Your task to perform on an android device: Open calendar and show me the second week of next month Image 0: 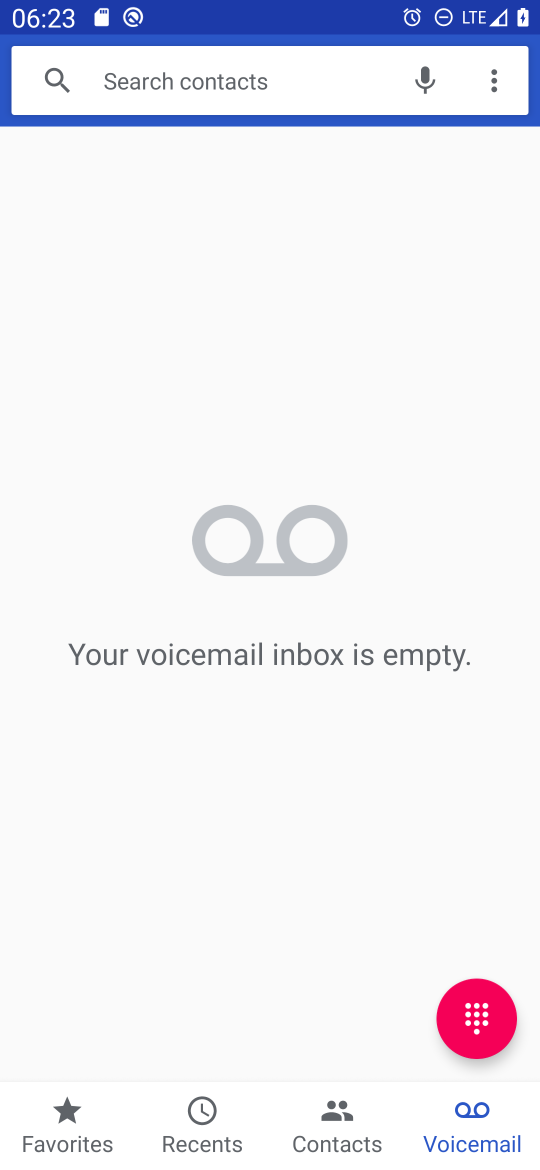
Step 0: press home button
Your task to perform on an android device: Open calendar and show me the second week of next month Image 1: 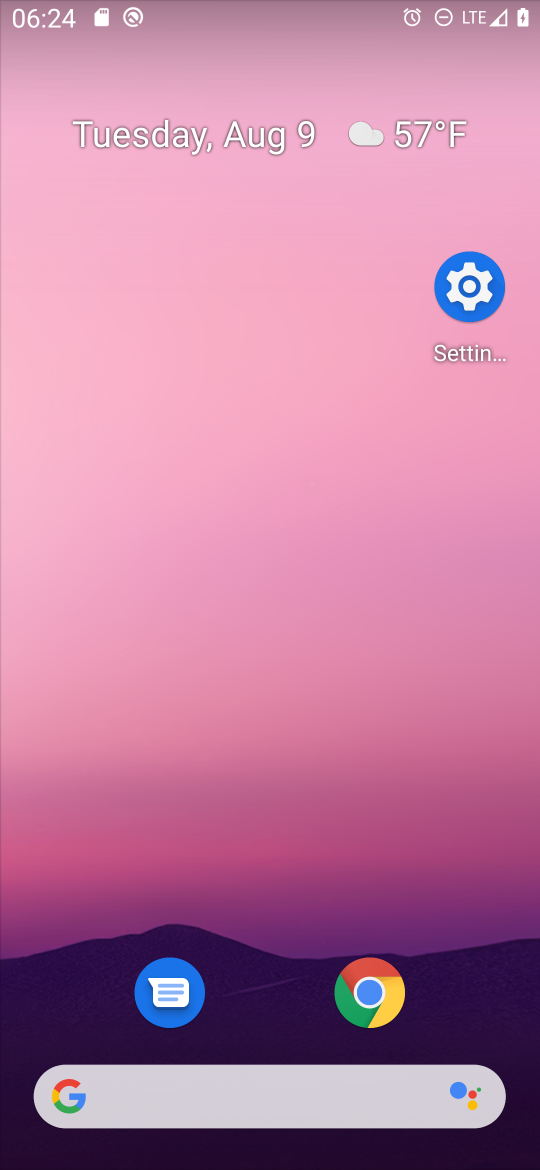
Step 1: drag from (136, 1090) to (152, 22)
Your task to perform on an android device: Open calendar and show me the second week of next month Image 2: 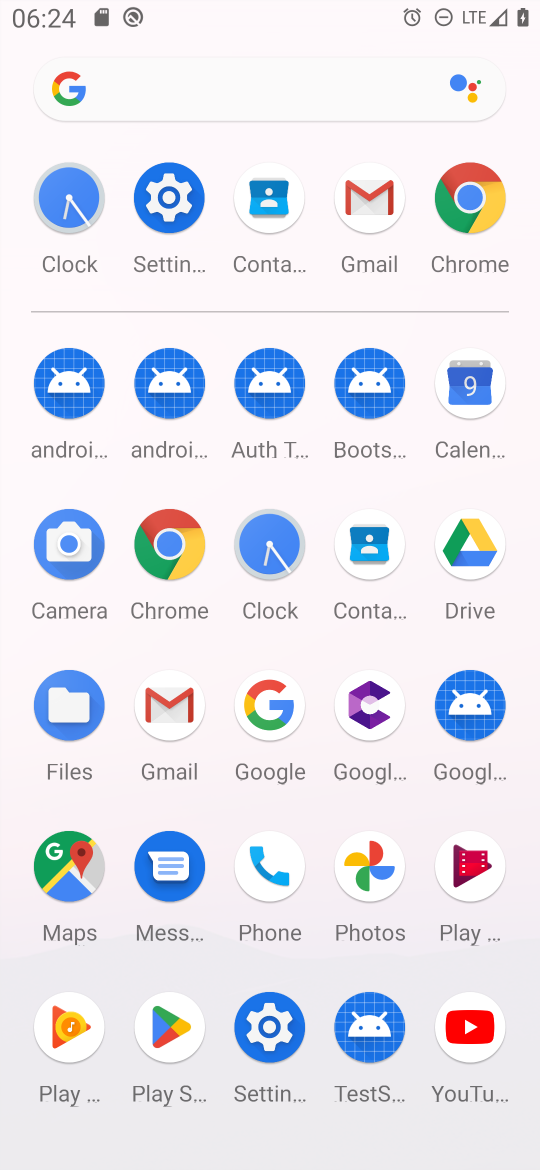
Step 2: click (493, 384)
Your task to perform on an android device: Open calendar and show me the second week of next month Image 3: 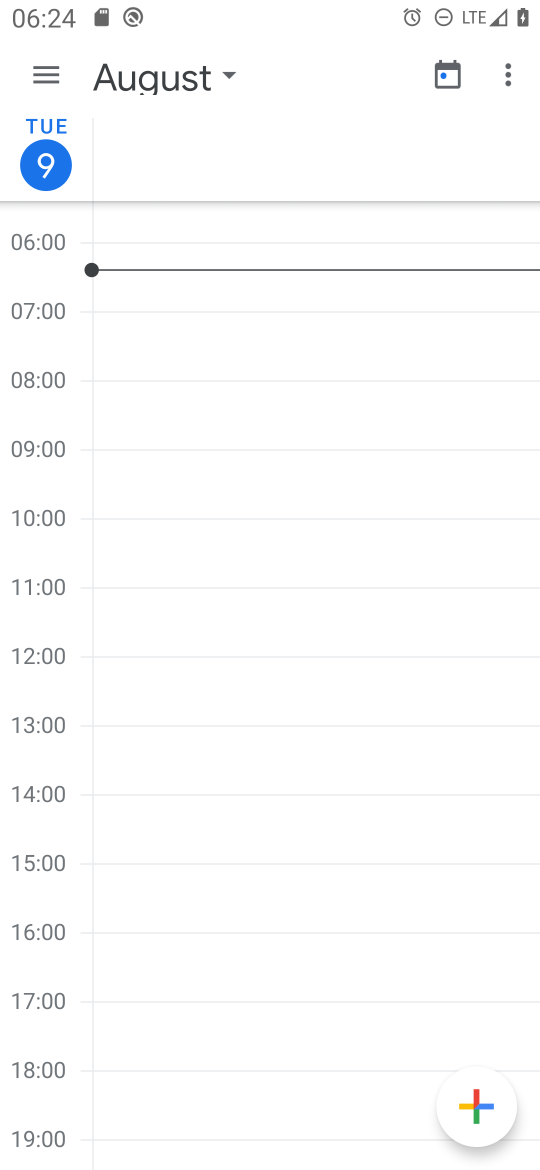
Step 3: click (218, 72)
Your task to perform on an android device: Open calendar and show me the second week of next month Image 4: 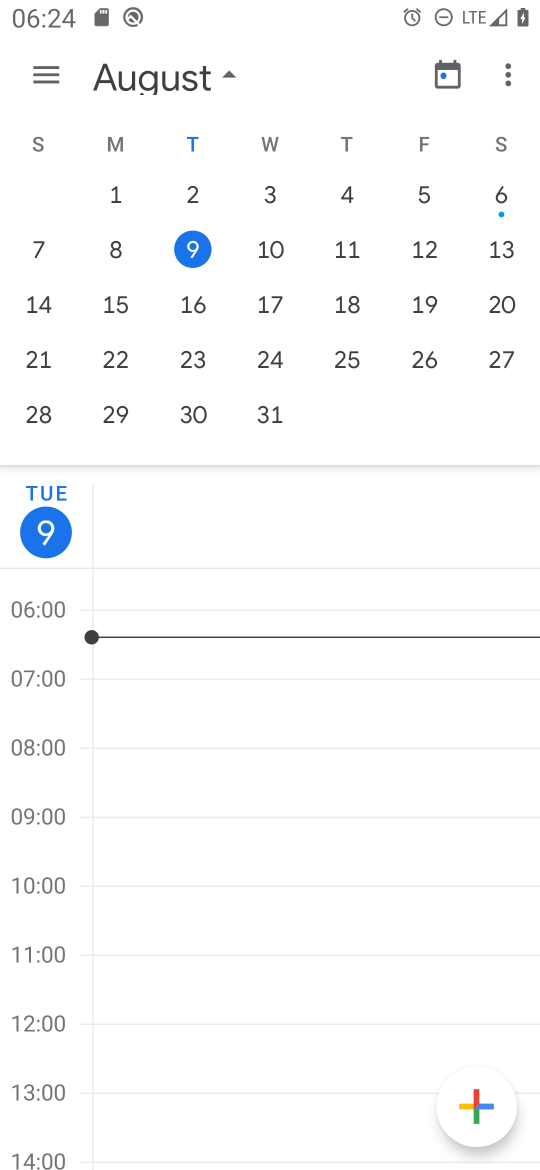
Step 4: drag from (443, 307) to (102, 284)
Your task to perform on an android device: Open calendar and show me the second week of next month Image 5: 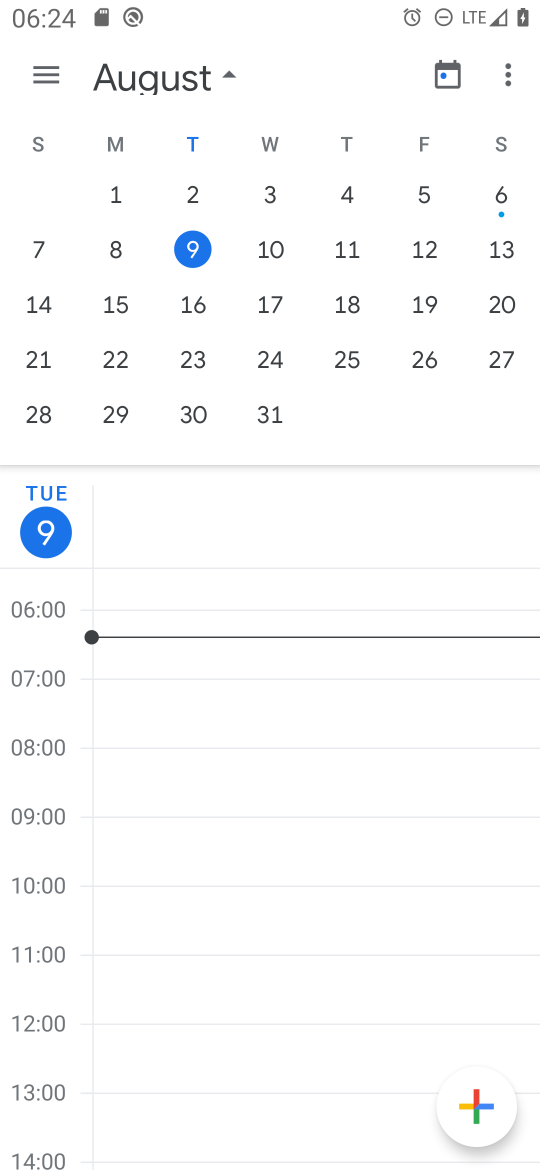
Step 5: drag from (488, 331) to (31, 370)
Your task to perform on an android device: Open calendar and show me the second week of next month Image 6: 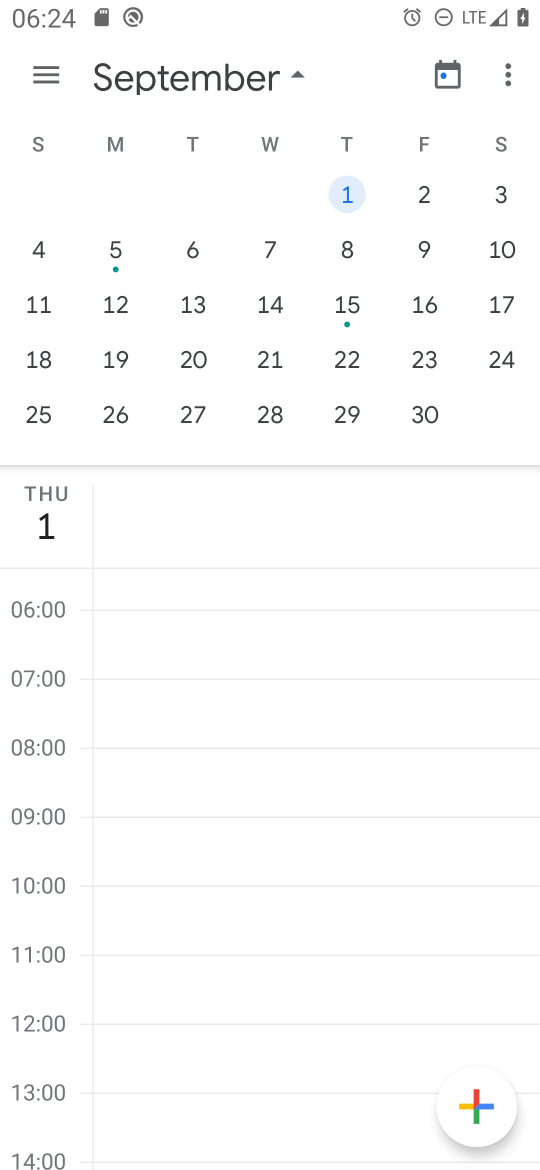
Step 6: drag from (490, 324) to (0, 364)
Your task to perform on an android device: Open calendar and show me the second week of next month Image 7: 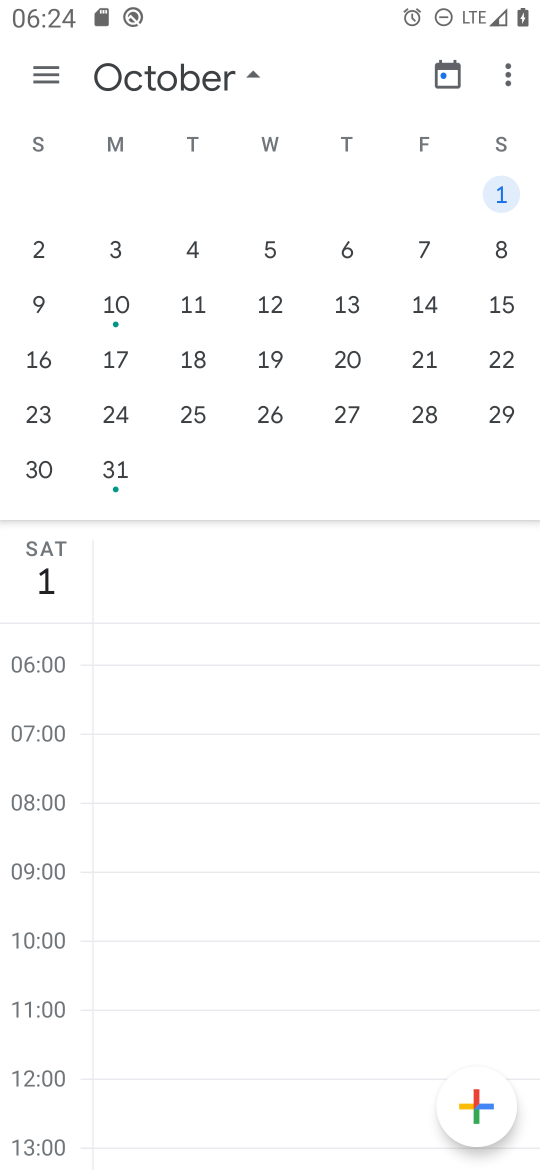
Step 7: drag from (119, 342) to (531, 320)
Your task to perform on an android device: Open calendar and show me the second week of next month Image 8: 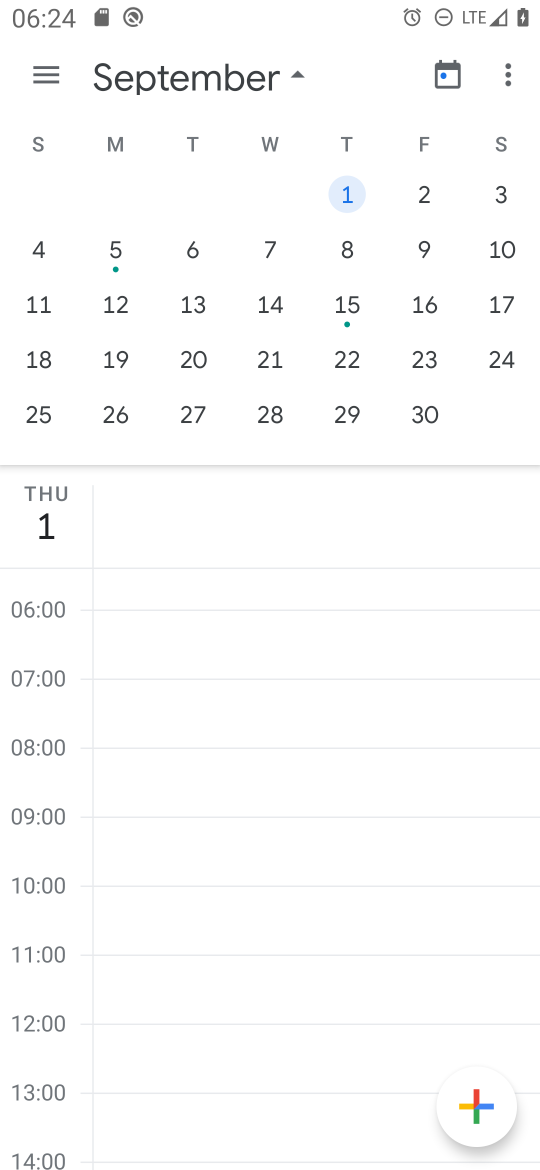
Step 8: click (260, 309)
Your task to perform on an android device: Open calendar and show me the second week of next month Image 9: 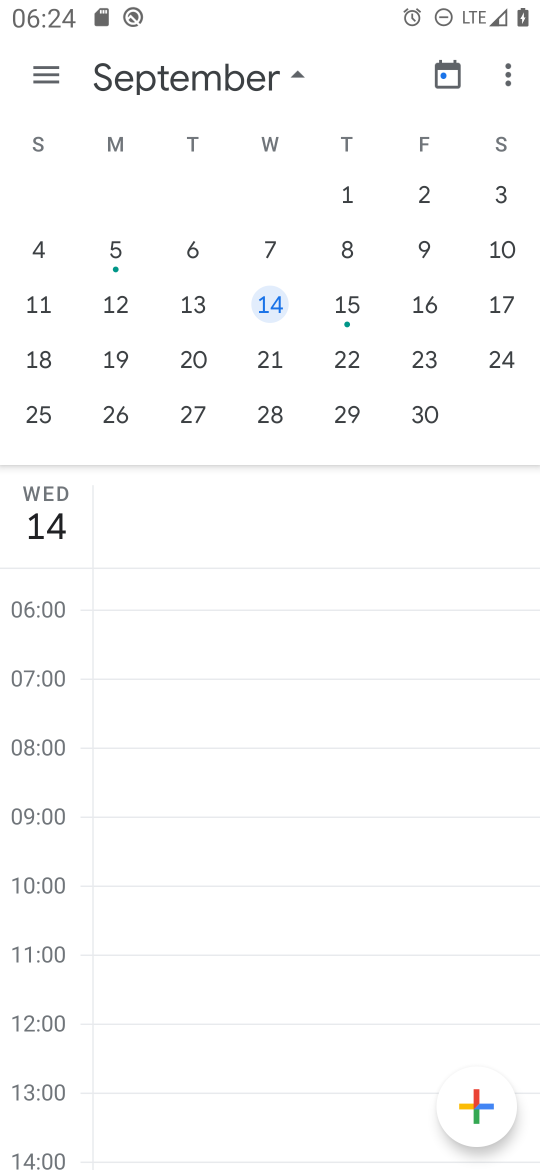
Step 9: task complete